Your task to perform on an android device: turn off smart reply in the gmail app Image 0: 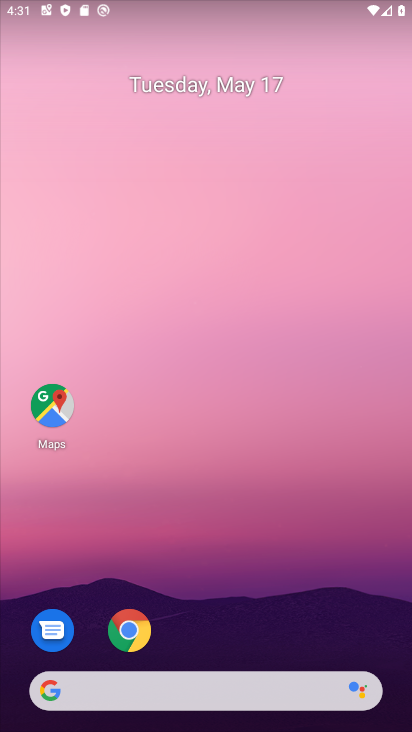
Step 0: drag from (190, 623) to (178, 138)
Your task to perform on an android device: turn off smart reply in the gmail app Image 1: 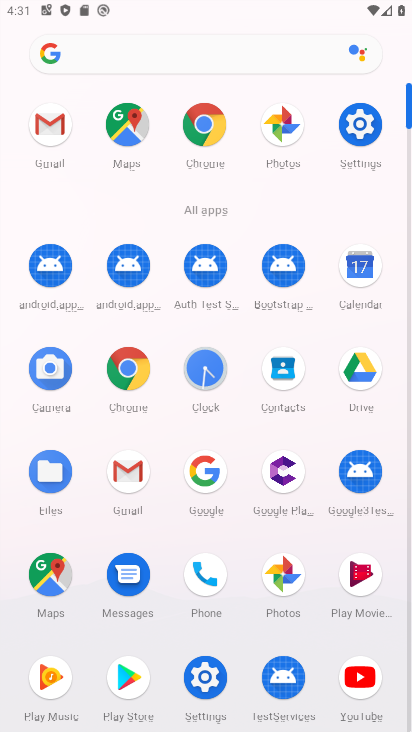
Step 1: click (53, 122)
Your task to perform on an android device: turn off smart reply in the gmail app Image 2: 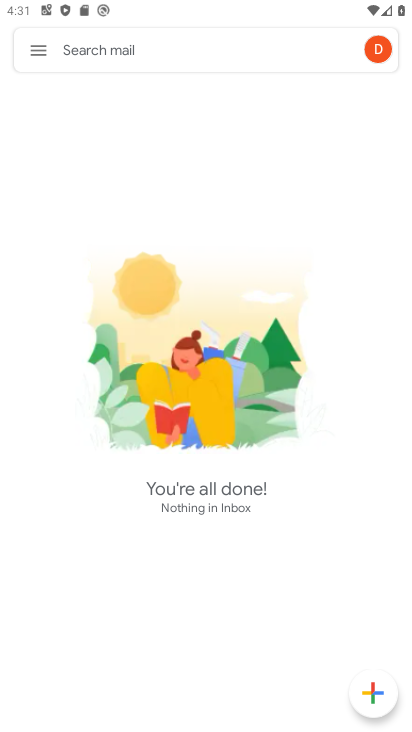
Step 2: click (40, 53)
Your task to perform on an android device: turn off smart reply in the gmail app Image 3: 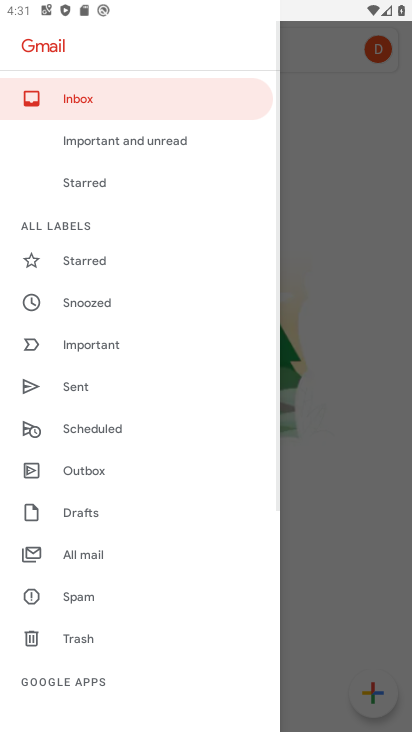
Step 3: drag from (105, 660) to (133, 327)
Your task to perform on an android device: turn off smart reply in the gmail app Image 4: 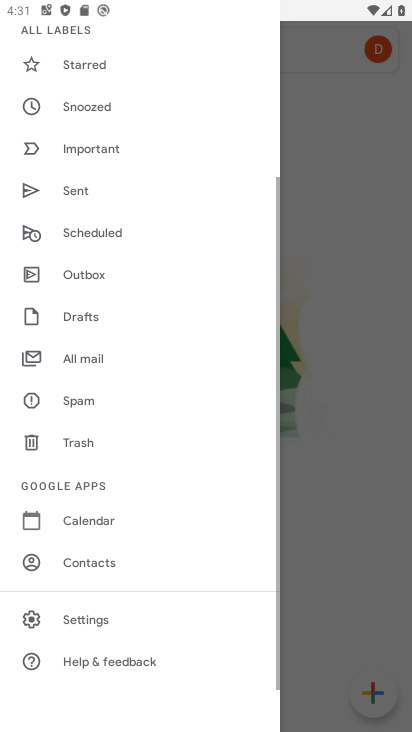
Step 4: click (79, 618)
Your task to perform on an android device: turn off smart reply in the gmail app Image 5: 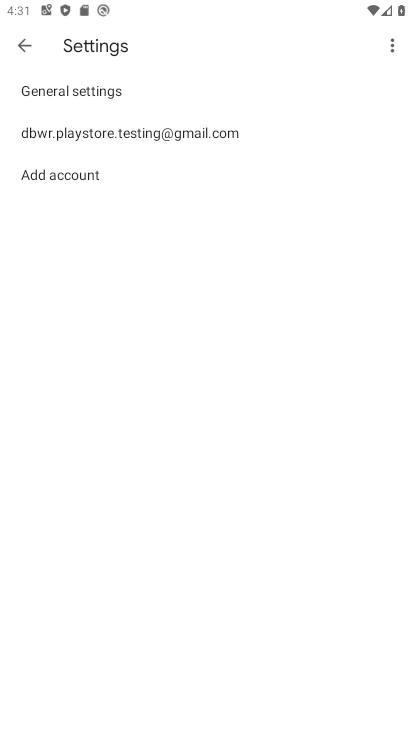
Step 5: click (162, 133)
Your task to perform on an android device: turn off smart reply in the gmail app Image 6: 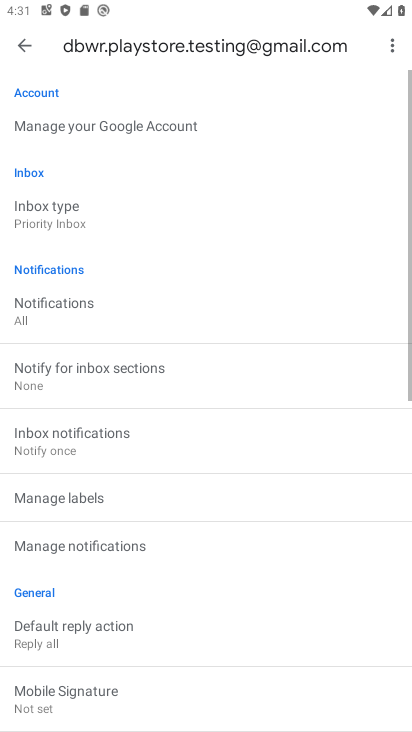
Step 6: drag from (220, 639) to (222, 216)
Your task to perform on an android device: turn off smart reply in the gmail app Image 7: 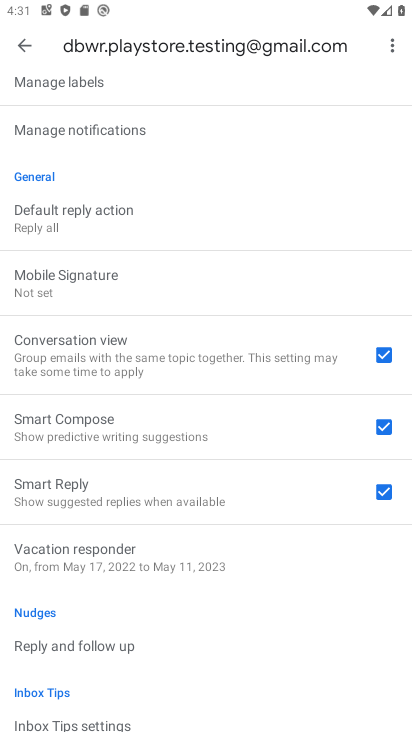
Step 7: click (373, 491)
Your task to perform on an android device: turn off smart reply in the gmail app Image 8: 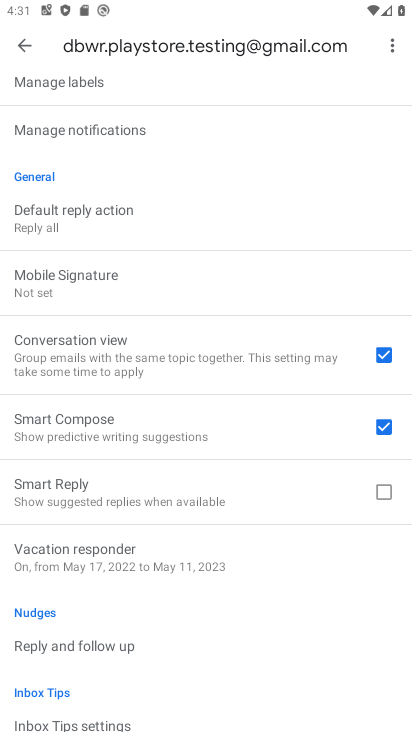
Step 8: task complete